Your task to perform on an android device: turn on bluetooth scan Image 0: 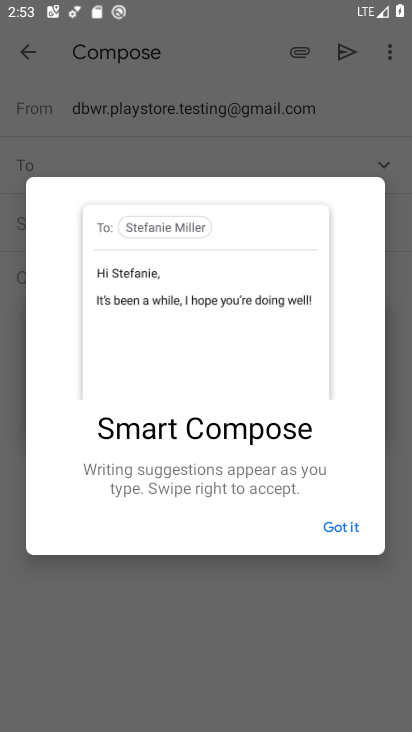
Step 0: press home button
Your task to perform on an android device: turn on bluetooth scan Image 1: 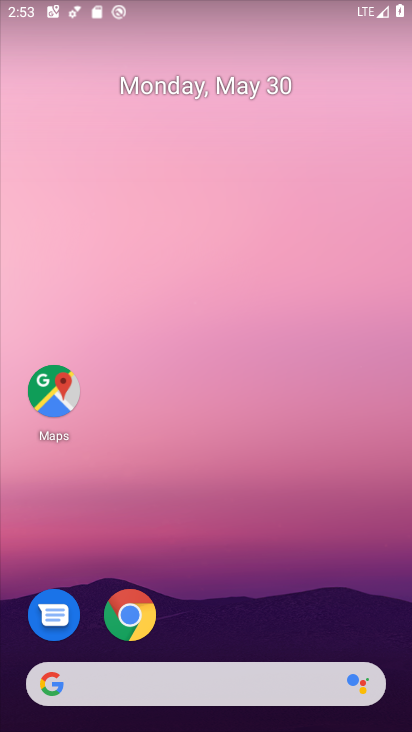
Step 1: drag from (228, 621) to (293, 2)
Your task to perform on an android device: turn on bluetooth scan Image 2: 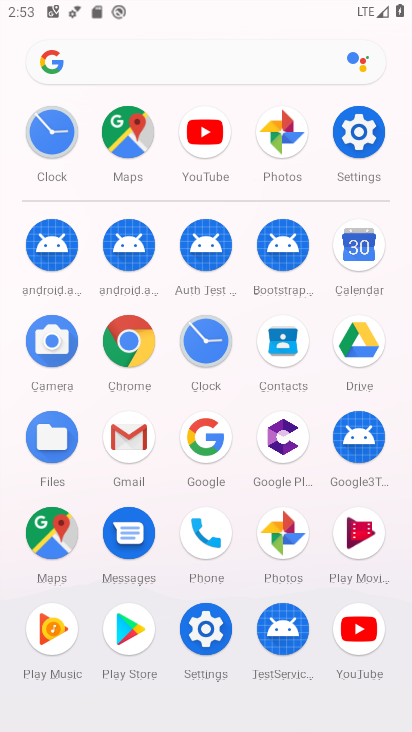
Step 2: click (354, 127)
Your task to perform on an android device: turn on bluetooth scan Image 3: 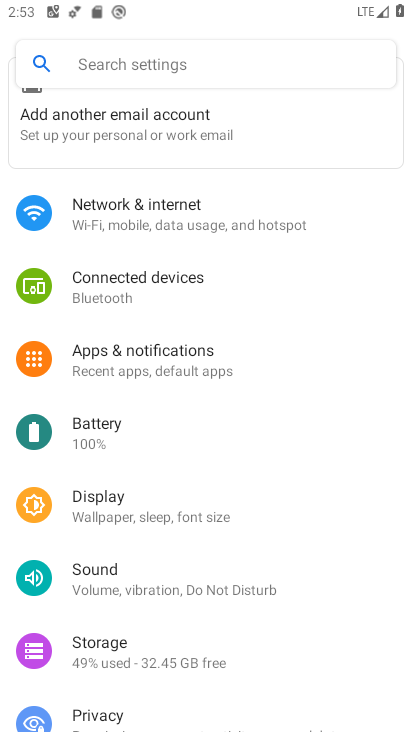
Step 3: drag from (166, 644) to (212, 274)
Your task to perform on an android device: turn on bluetooth scan Image 4: 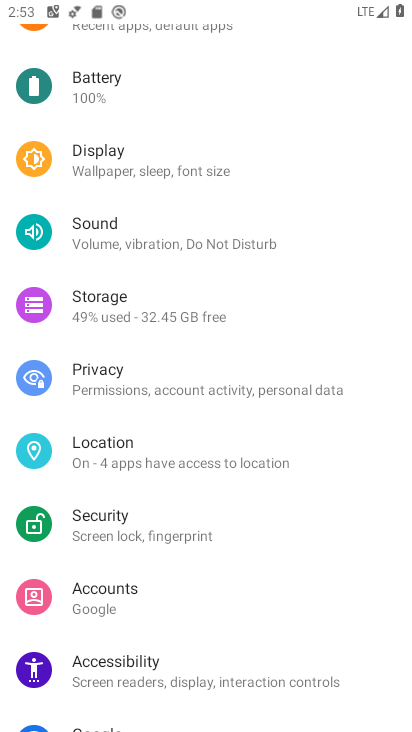
Step 4: click (199, 456)
Your task to perform on an android device: turn on bluetooth scan Image 5: 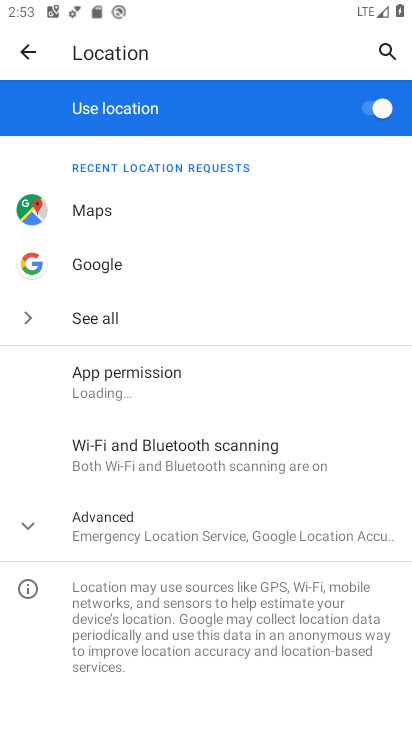
Step 5: click (267, 455)
Your task to perform on an android device: turn on bluetooth scan Image 6: 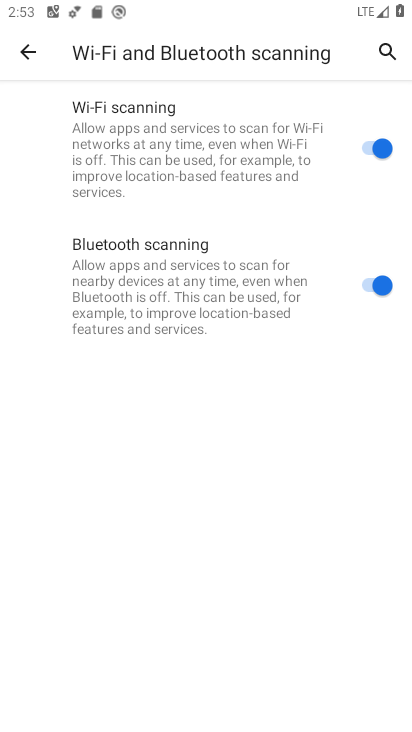
Step 6: task complete